Your task to perform on an android device: What is the recent news? Image 0: 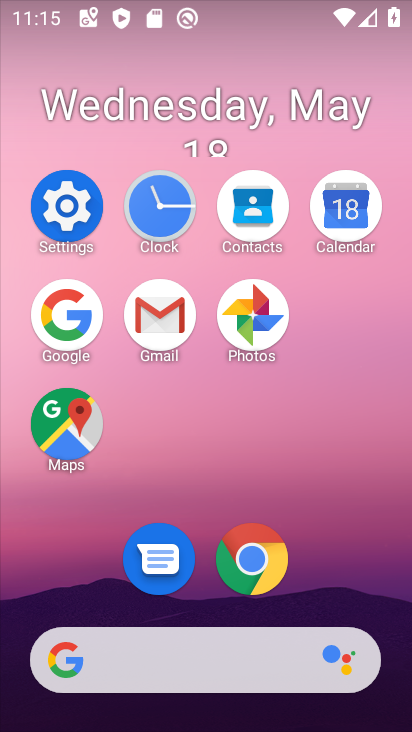
Step 0: click (86, 325)
Your task to perform on an android device: What is the recent news? Image 1: 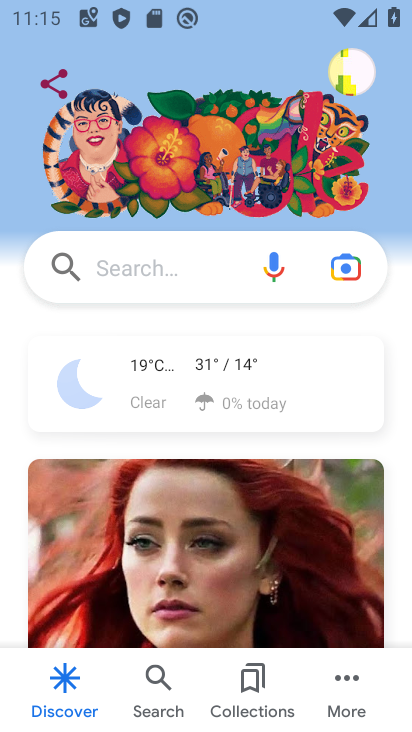
Step 1: click (213, 262)
Your task to perform on an android device: What is the recent news? Image 2: 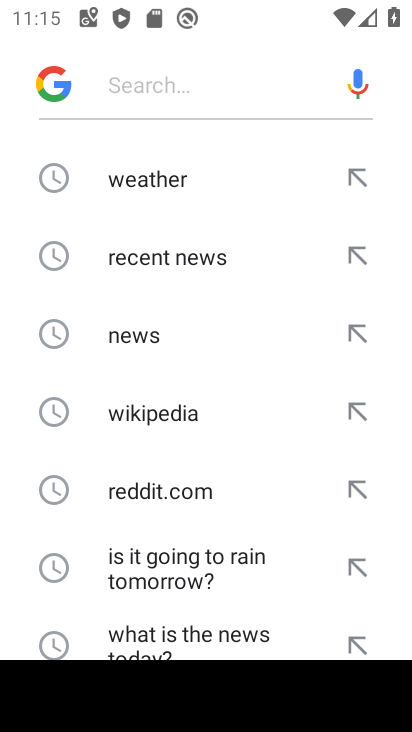
Step 2: click (155, 257)
Your task to perform on an android device: What is the recent news? Image 3: 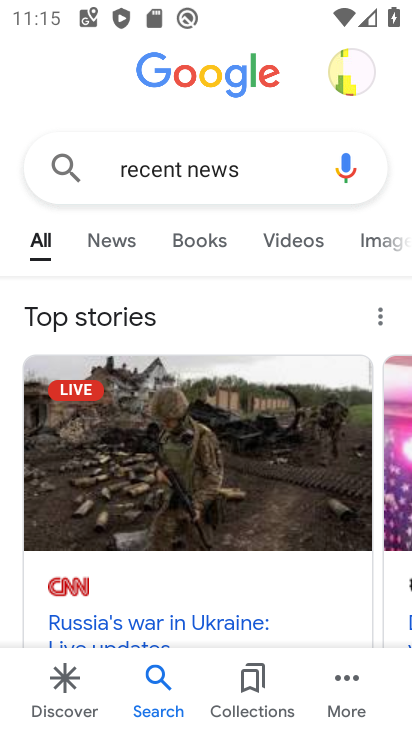
Step 3: task complete